Your task to perform on an android device: Open the calendar and show me this week's events Image 0: 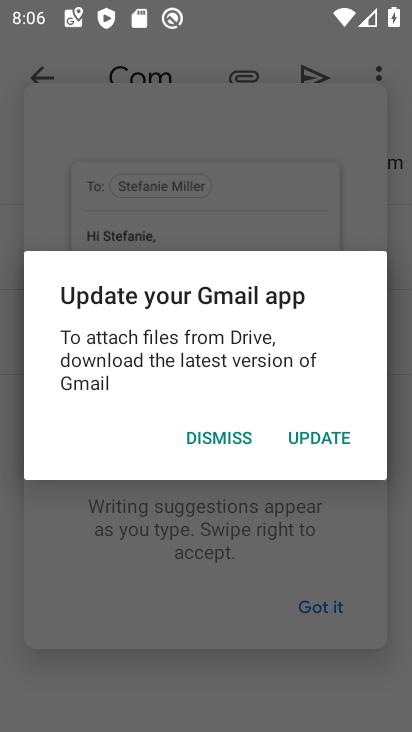
Step 0: press home button
Your task to perform on an android device: Open the calendar and show me this week's events Image 1: 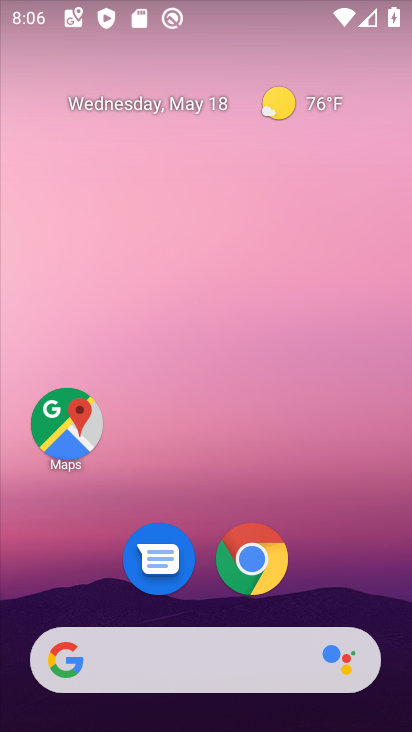
Step 1: drag from (226, 617) to (162, 55)
Your task to perform on an android device: Open the calendar and show me this week's events Image 2: 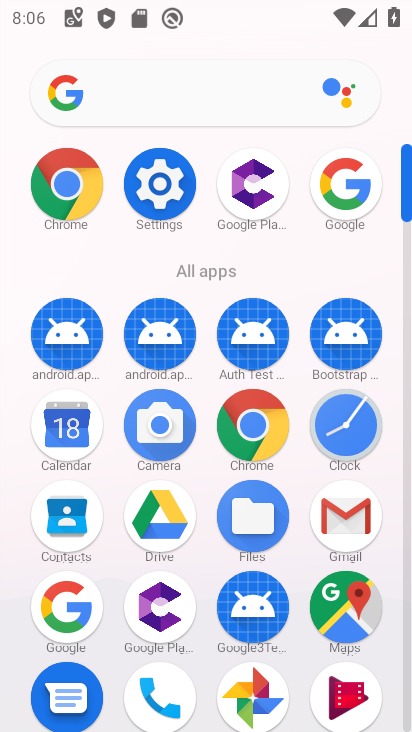
Step 2: click (42, 426)
Your task to perform on an android device: Open the calendar and show me this week's events Image 3: 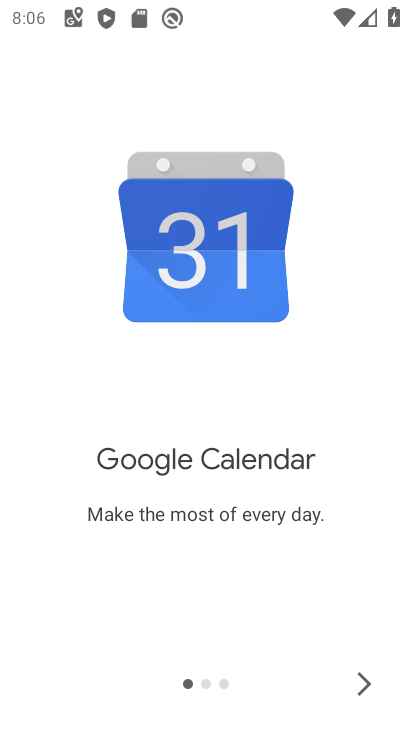
Step 3: click (371, 676)
Your task to perform on an android device: Open the calendar and show me this week's events Image 4: 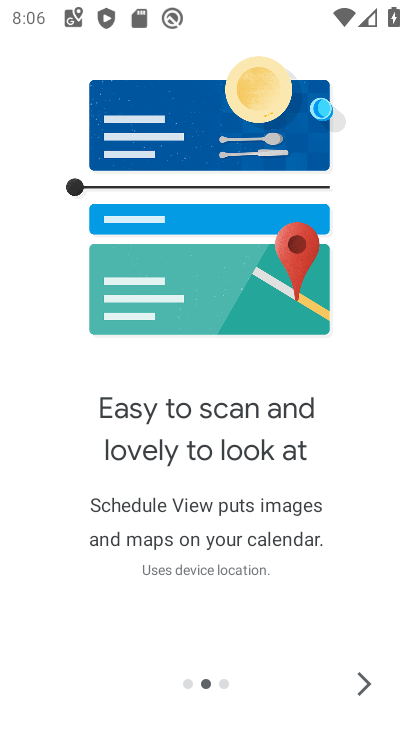
Step 4: click (371, 676)
Your task to perform on an android device: Open the calendar and show me this week's events Image 5: 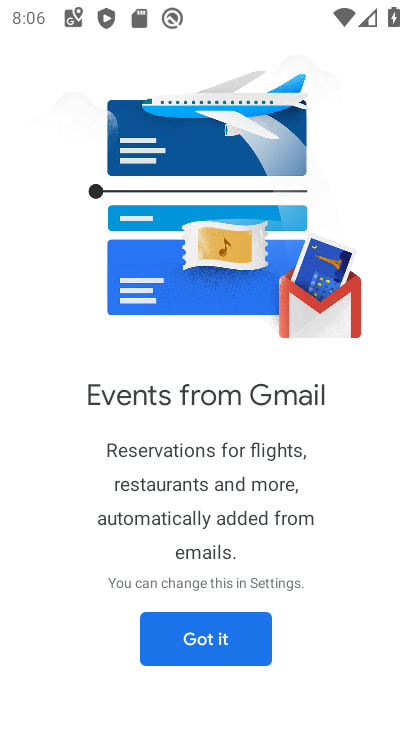
Step 5: click (173, 647)
Your task to perform on an android device: Open the calendar and show me this week's events Image 6: 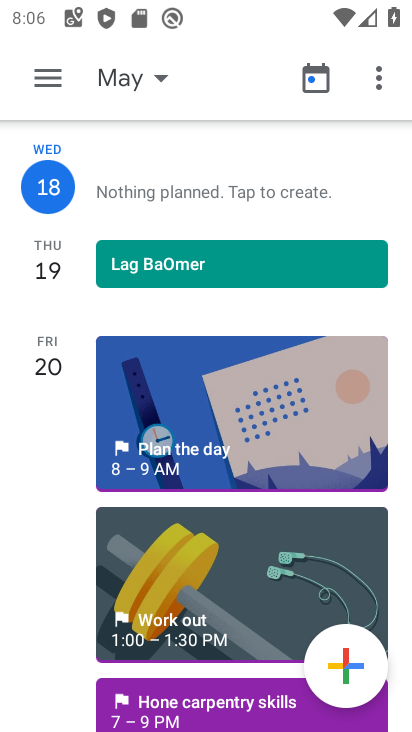
Step 6: click (46, 80)
Your task to perform on an android device: Open the calendar and show me this week's events Image 7: 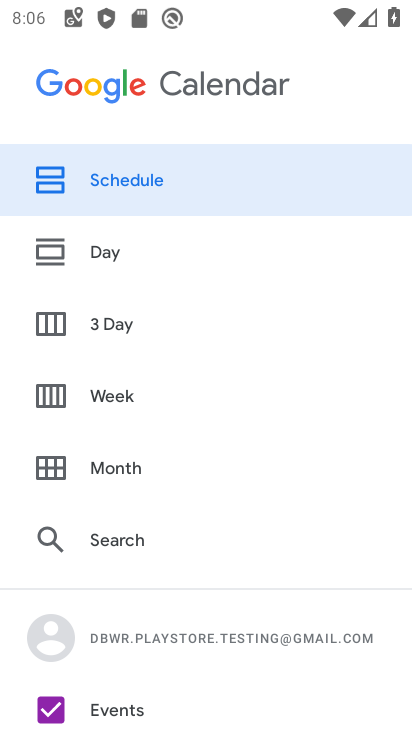
Step 7: click (101, 392)
Your task to perform on an android device: Open the calendar and show me this week's events Image 8: 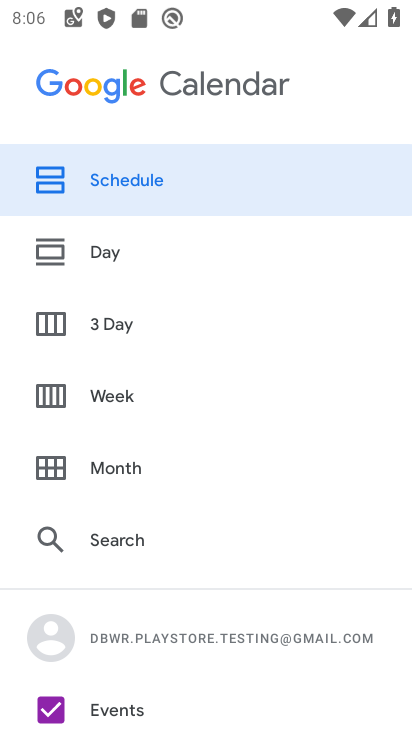
Step 8: click (102, 390)
Your task to perform on an android device: Open the calendar and show me this week's events Image 9: 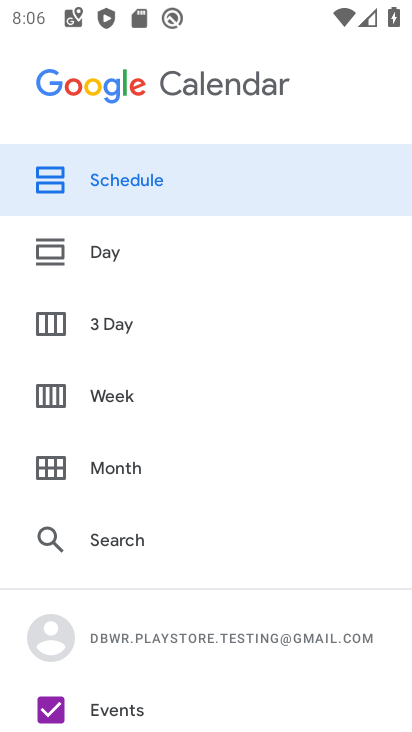
Step 9: click (161, 378)
Your task to perform on an android device: Open the calendar and show me this week's events Image 10: 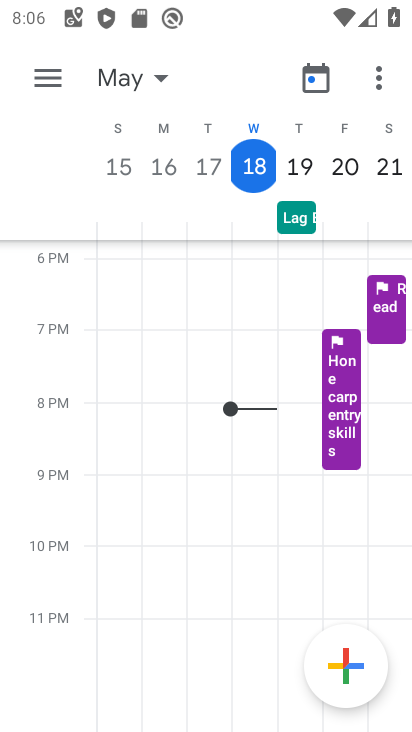
Step 10: task complete